Your task to perform on an android device: When is my next appointment? Image 0: 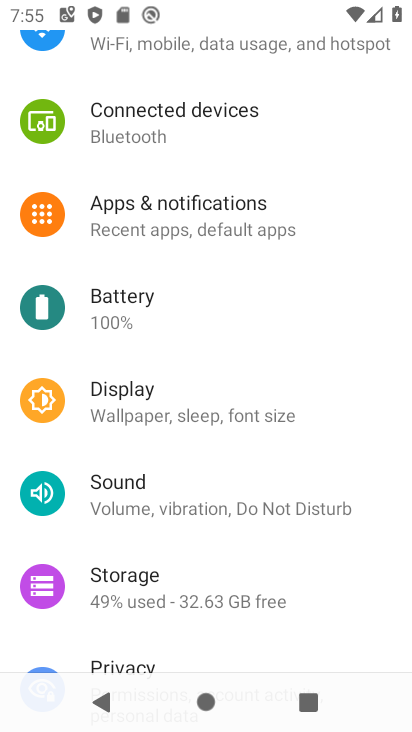
Step 0: press home button
Your task to perform on an android device: When is my next appointment? Image 1: 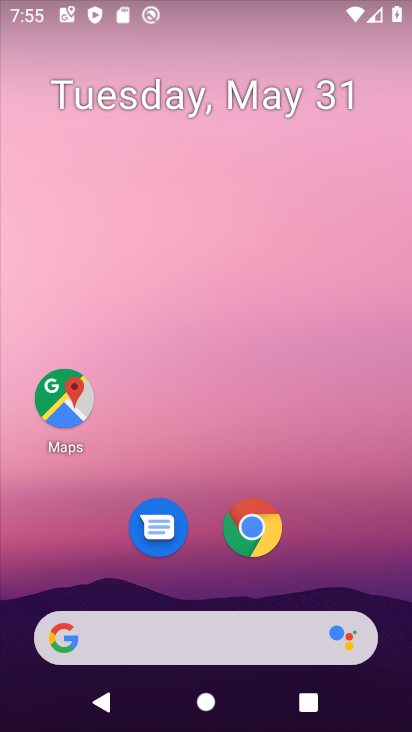
Step 1: drag from (324, 527) to (213, 146)
Your task to perform on an android device: When is my next appointment? Image 2: 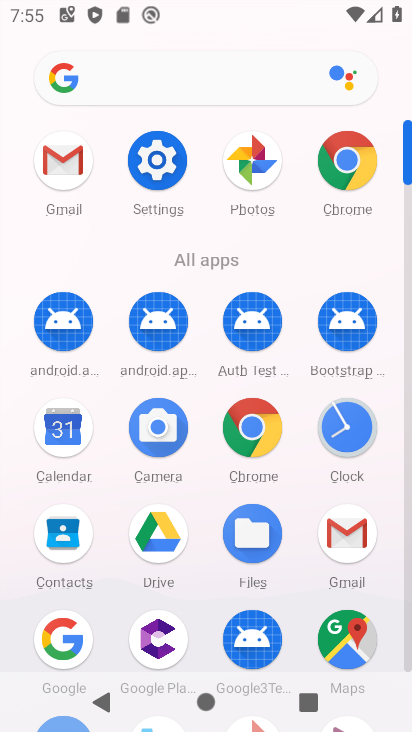
Step 2: click (60, 440)
Your task to perform on an android device: When is my next appointment? Image 3: 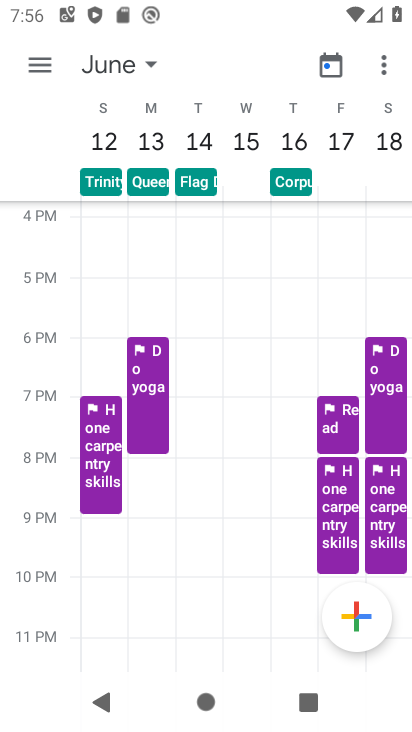
Step 3: click (30, 64)
Your task to perform on an android device: When is my next appointment? Image 4: 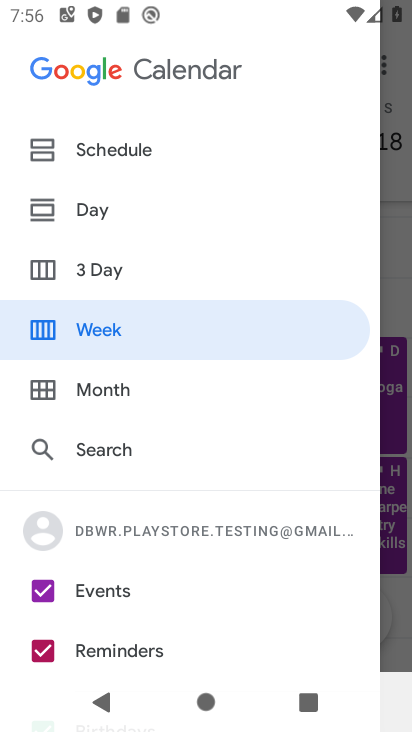
Step 4: click (86, 206)
Your task to perform on an android device: When is my next appointment? Image 5: 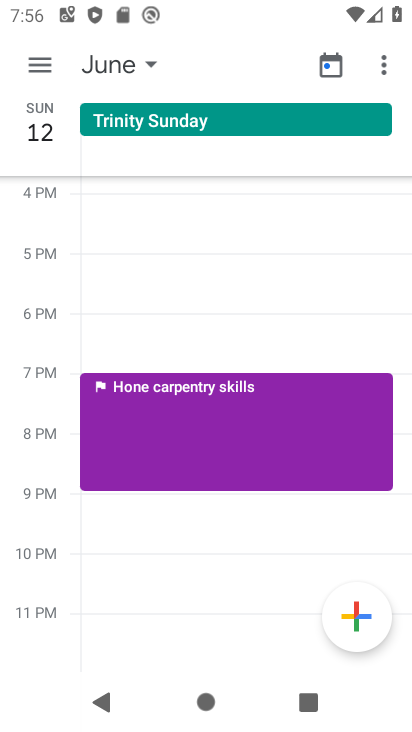
Step 5: click (146, 62)
Your task to perform on an android device: When is my next appointment? Image 6: 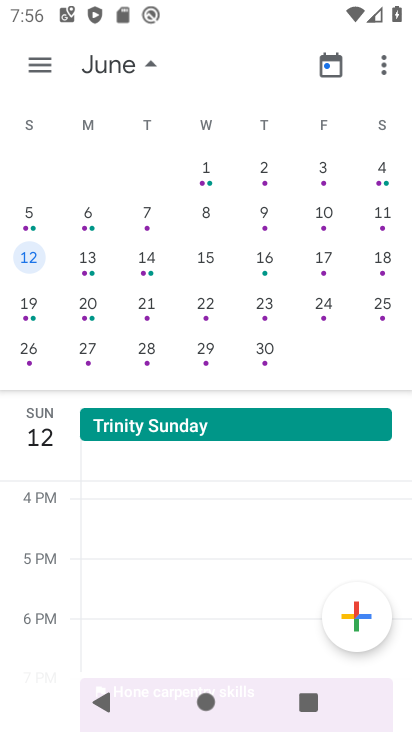
Step 6: drag from (55, 212) to (388, 354)
Your task to perform on an android device: When is my next appointment? Image 7: 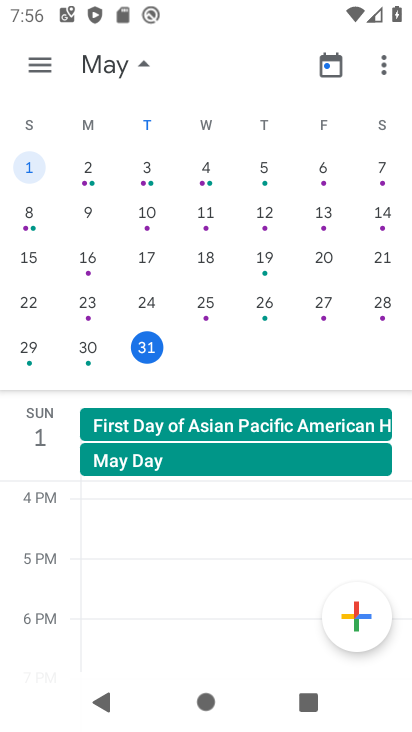
Step 7: click (146, 339)
Your task to perform on an android device: When is my next appointment? Image 8: 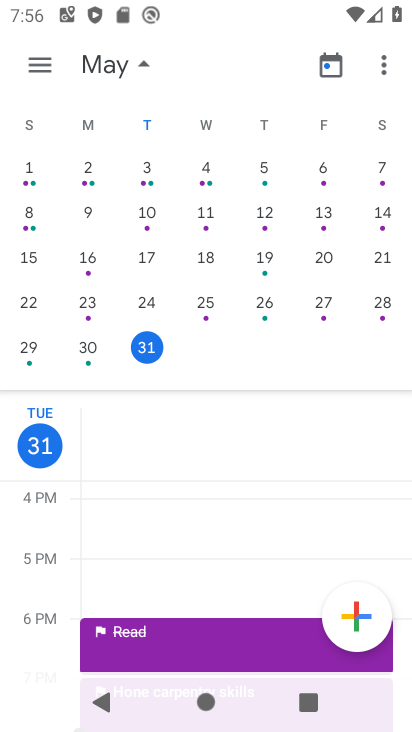
Step 8: task complete